Your task to perform on an android device: turn off translation in the chrome app Image 0: 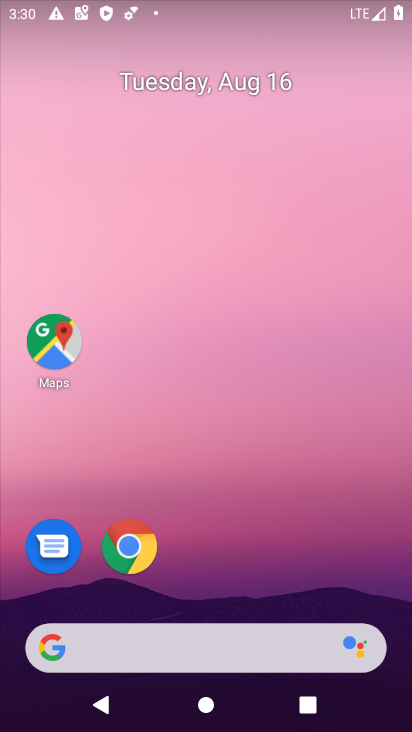
Step 0: press home button
Your task to perform on an android device: turn off translation in the chrome app Image 1: 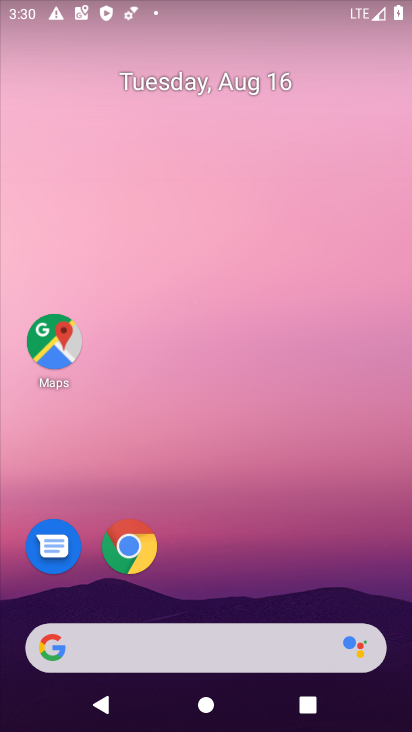
Step 1: drag from (332, 598) to (347, 146)
Your task to perform on an android device: turn off translation in the chrome app Image 2: 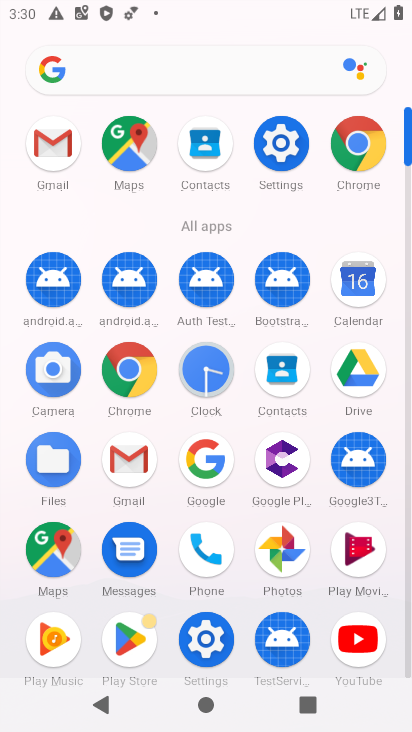
Step 2: click (130, 380)
Your task to perform on an android device: turn off translation in the chrome app Image 3: 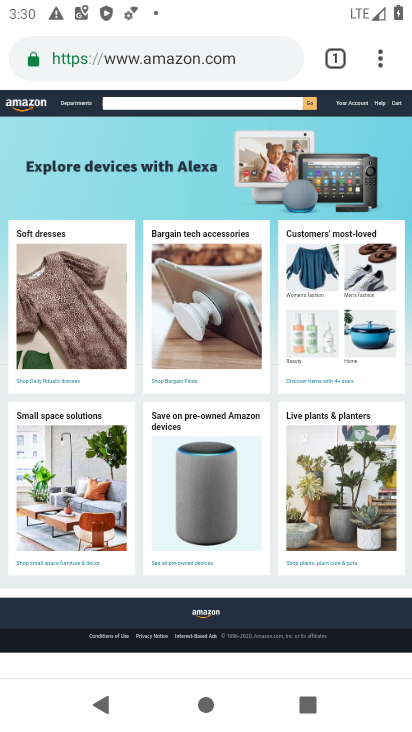
Step 3: click (379, 63)
Your task to perform on an android device: turn off translation in the chrome app Image 4: 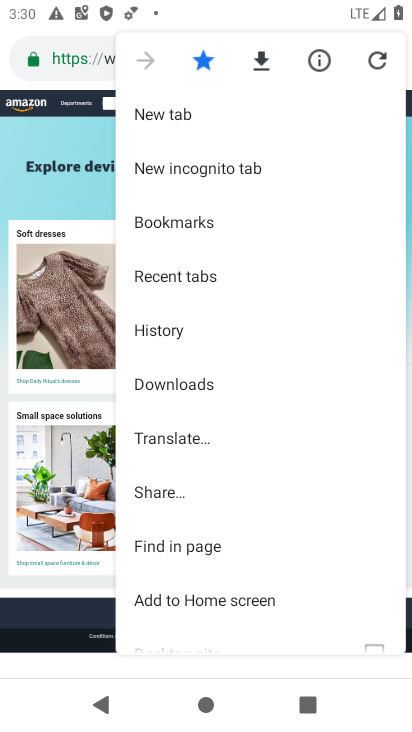
Step 4: drag from (293, 429) to (306, 302)
Your task to perform on an android device: turn off translation in the chrome app Image 5: 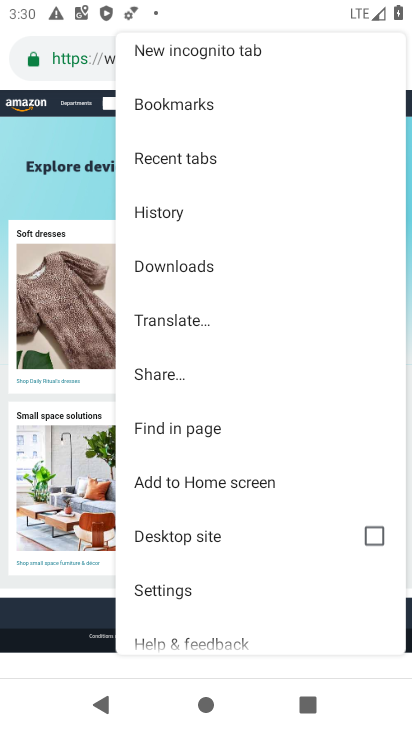
Step 5: drag from (273, 523) to (293, 423)
Your task to perform on an android device: turn off translation in the chrome app Image 6: 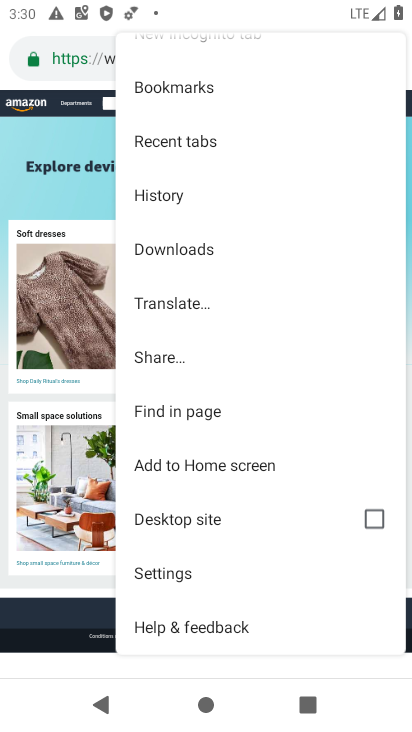
Step 6: click (185, 577)
Your task to perform on an android device: turn off translation in the chrome app Image 7: 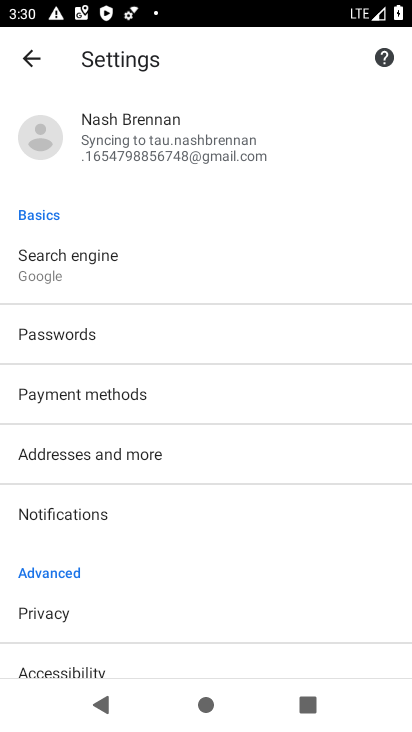
Step 7: drag from (285, 598) to (296, 465)
Your task to perform on an android device: turn off translation in the chrome app Image 8: 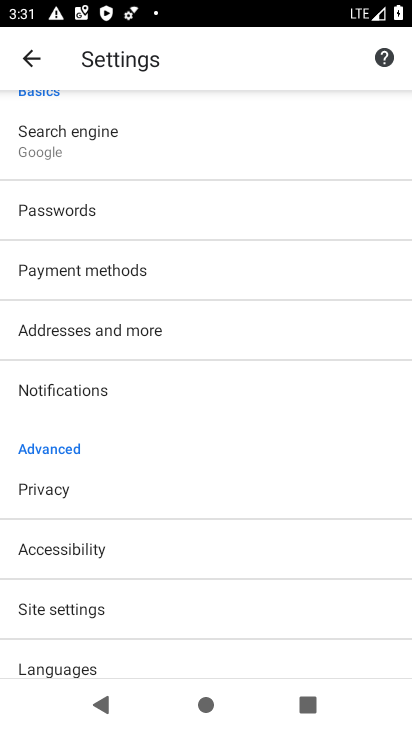
Step 8: drag from (314, 603) to (315, 458)
Your task to perform on an android device: turn off translation in the chrome app Image 9: 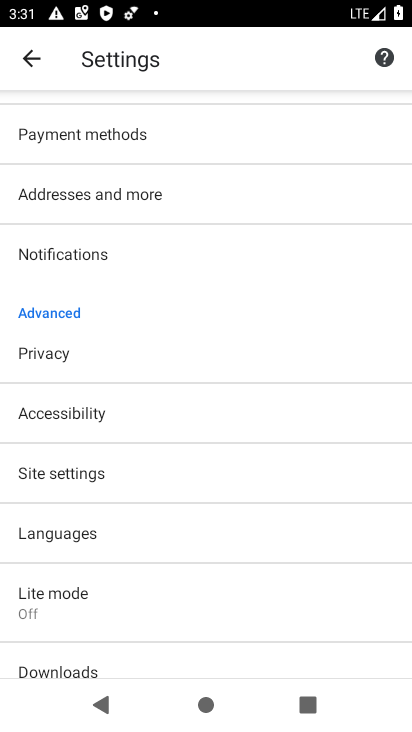
Step 9: drag from (275, 597) to (279, 465)
Your task to perform on an android device: turn off translation in the chrome app Image 10: 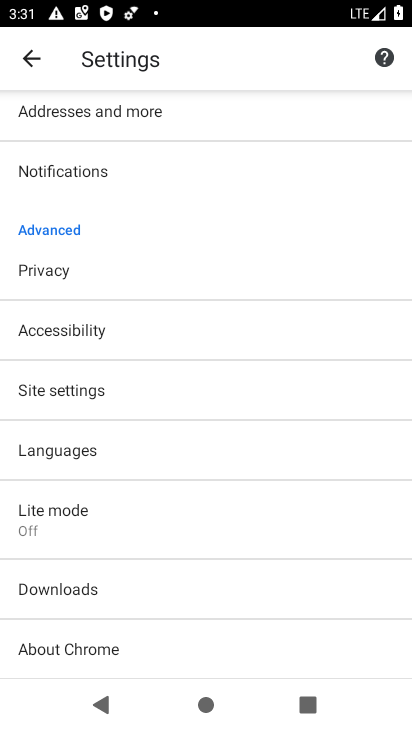
Step 10: click (203, 443)
Your task to perform on an android device: turn off translation in the chrome app Image 11: 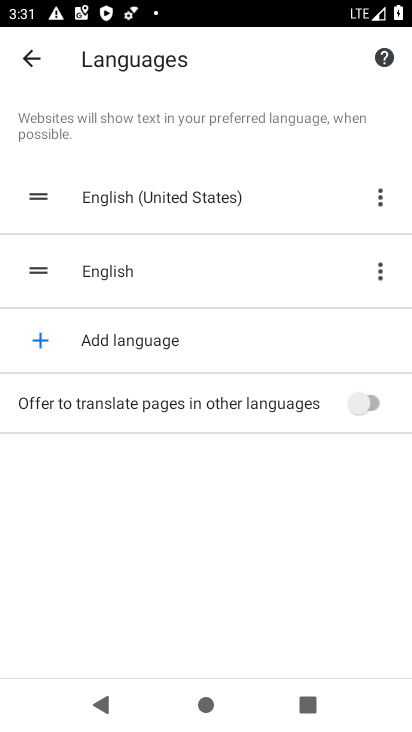
Step 11: task complete